Your task to perform on an android device: Open ESPN.com Image 0: 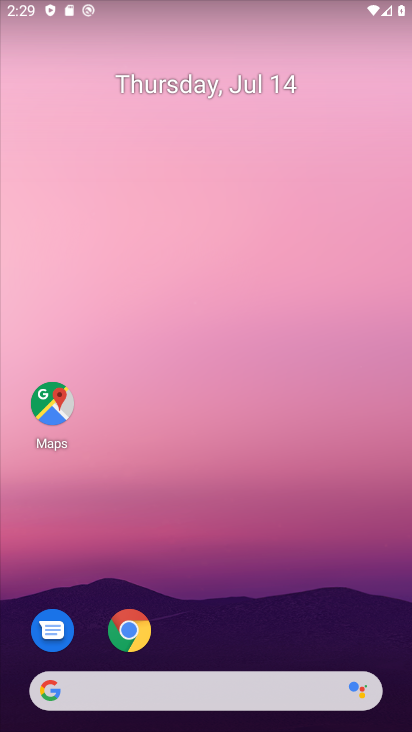
Step 0: click (130, 625)
Your task to perform on an android device: Open ESPN.com Image 1: 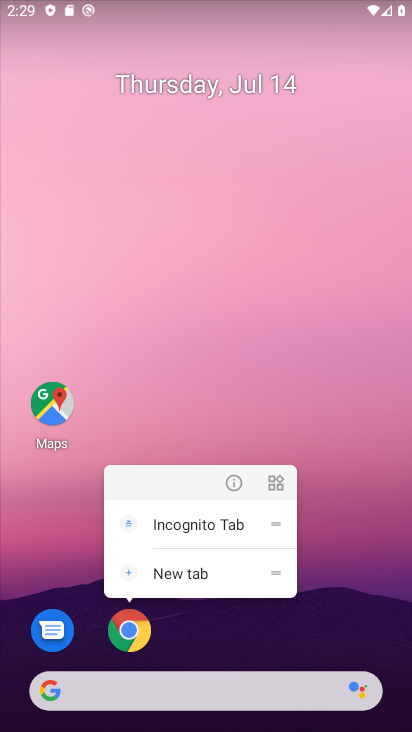
Step 1: click (126, 629)
Your task to perform on an android device: Open ESPN.com Image 2: 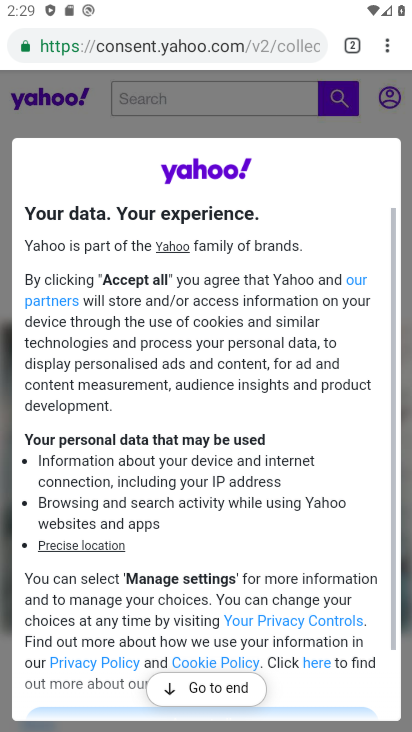
Step 2: click (346, 43)
Your task to perform on an android device: Open ESPN.com Image 3: 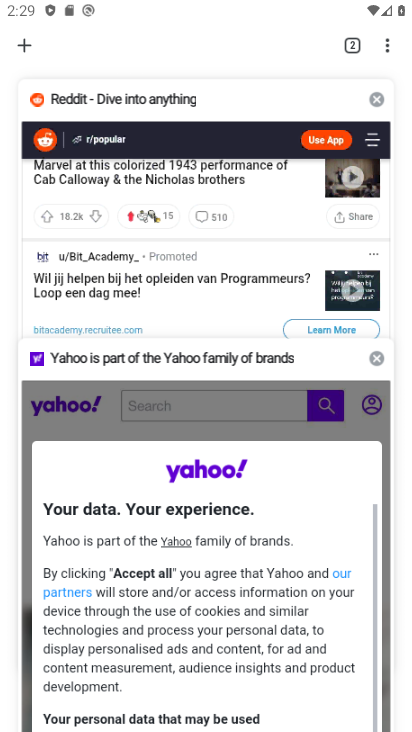
Step 3: click (376, 352)
Your task to perform on an android device: Open ESPN.com Image 4: 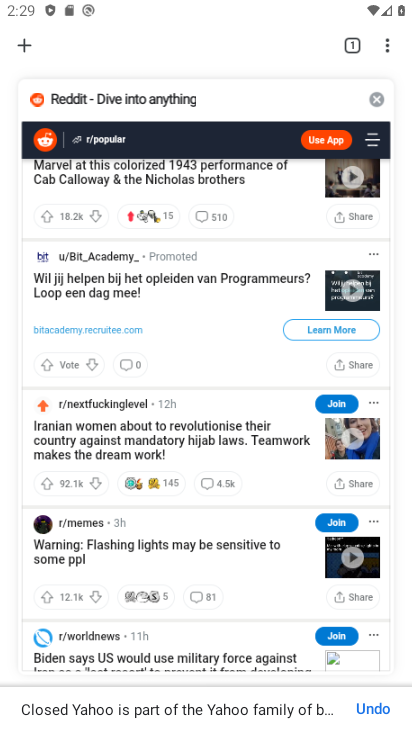
Step 4: click (26, 35)
Your task to perform on an android device: Open ESPN.com Image 5: 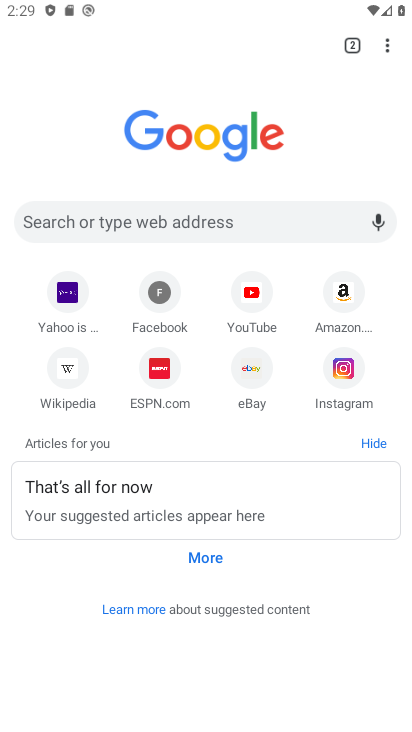
Step 5: click (157, 364)
Your task to perform on an android device: Open ESPN.com Image 6: 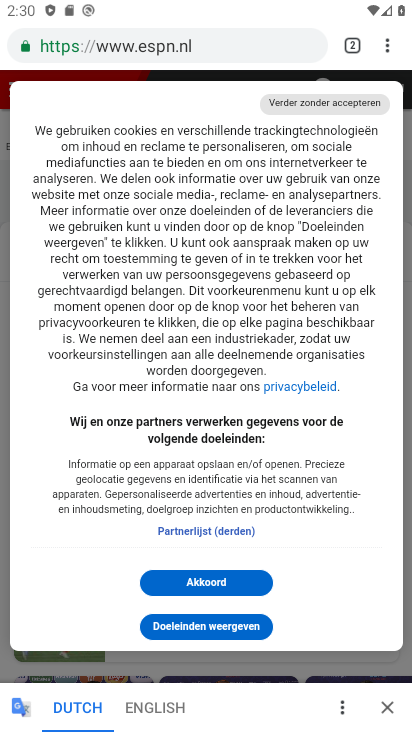
Step 6: click (207, 581)
Your task to perform on an android device: Open ESPN.com Image 7: 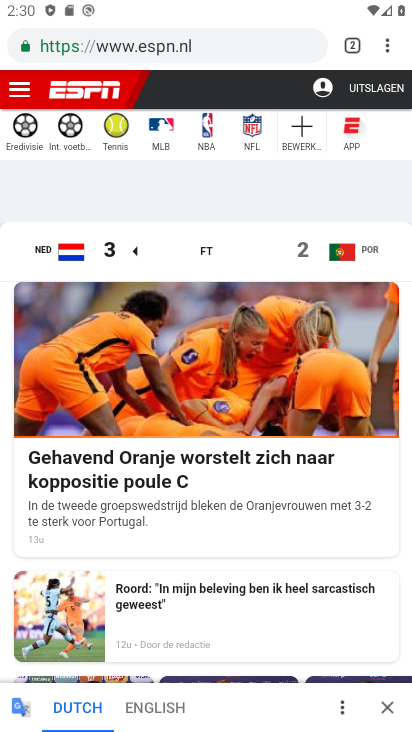
Step 7: task complete